Your task to perform on an android device: turn off wifi Image 0: 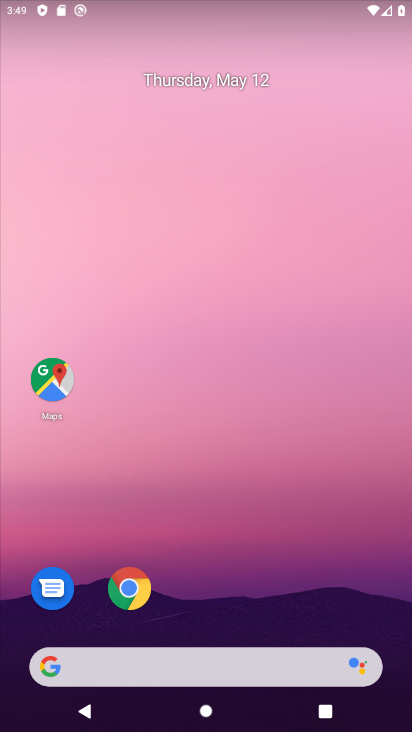
Step 0: click (284, 222)
Your task to perform on an android device: turn off wifi Image 1: 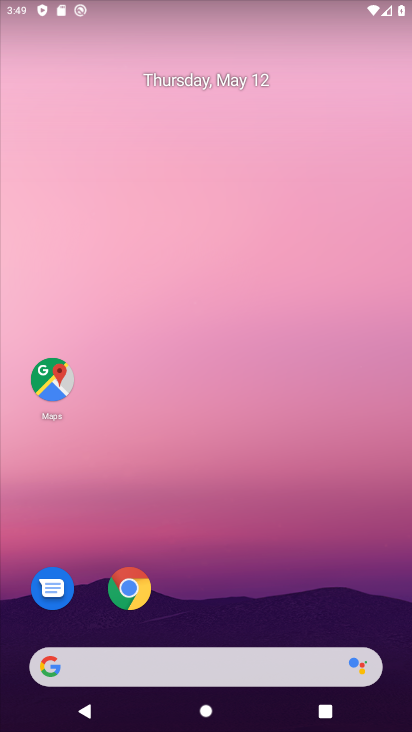
Step 1: drag from (183, 653) to (201, 155)
Your task to perform on an android device: turn off wifi Image 2: 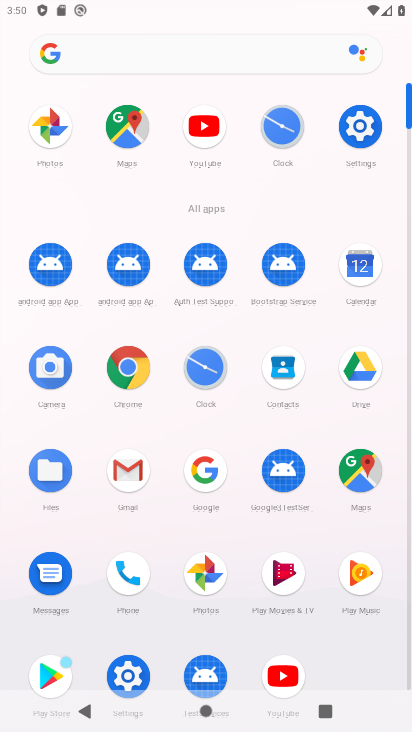
Step 2: click (369, 111)
Your task to perform on an android device: turn off wifi Image 3: 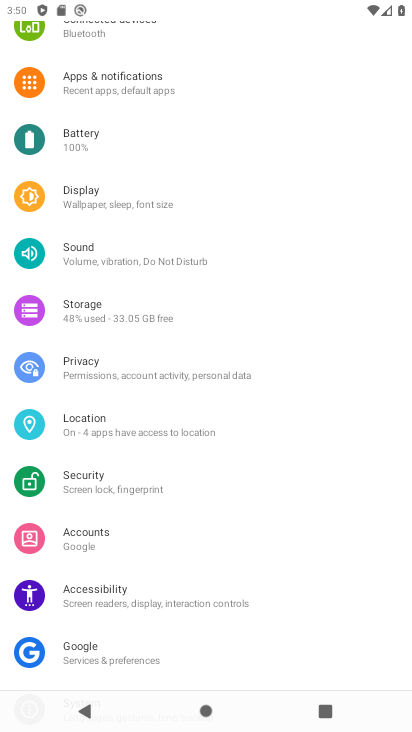
Step 3: drag from (153, 115) to (261, 671)
Your task to perform on an android device: turn off wifi Image 4: 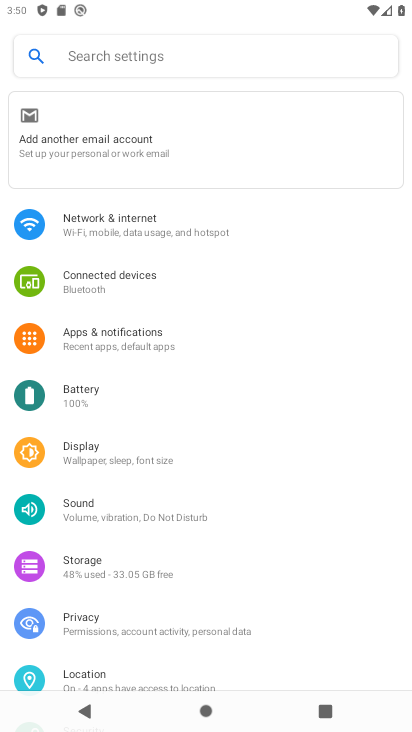
Step 4: click (166, 235)
Your task to perform on an android device: turn off wifi Image 5: 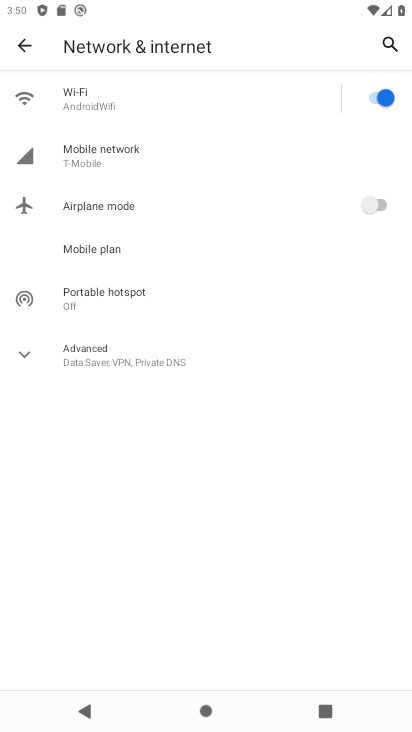
Step 5: click (195, 84)
Your task to perform on an android device: turn off wifi Image 6: 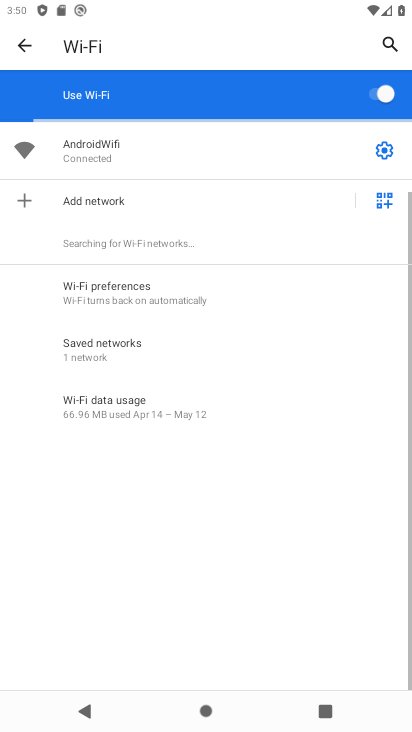
Step 6: click (363, 90)
Your task to perform on an android device: turn off wifi Image 7: 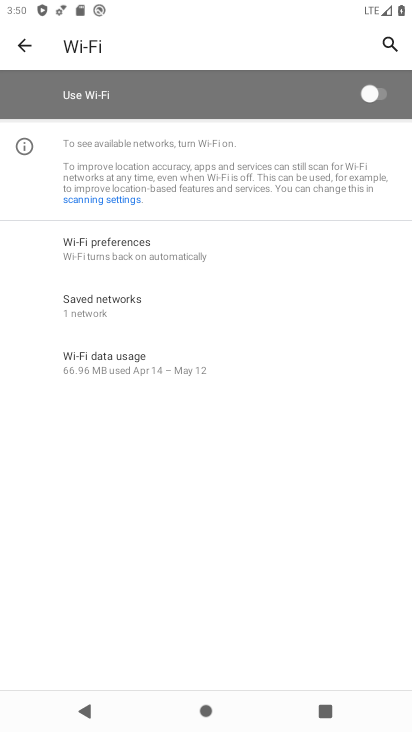
Step 7: task complete